Your task to perform on an android device: see tabs open on other devices in the chrome app Image 0: 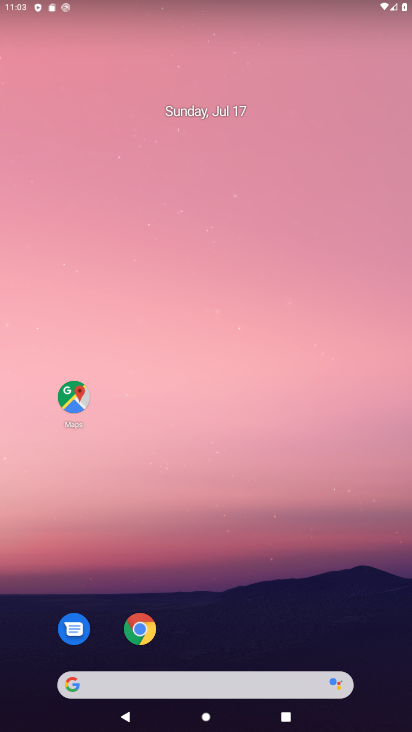
Step 0: click (144, 627)
Your task to perform on an android device: see tabs open on other devices in the chrome app Image 1: 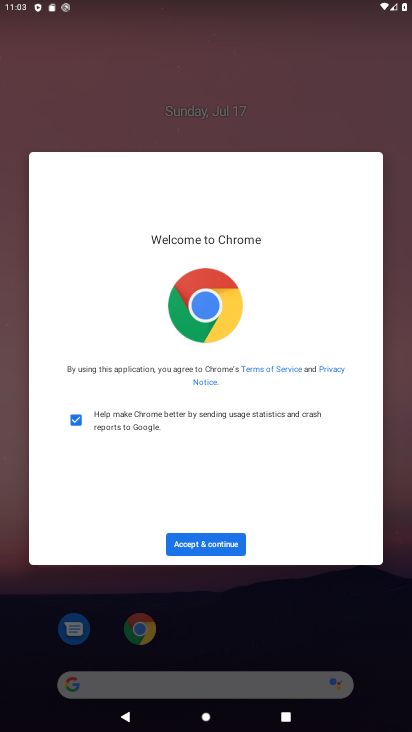
Step 1: click (196, 536)
Your task to perform on an android device: see tabs open on other devices in the chrome app Image 2: 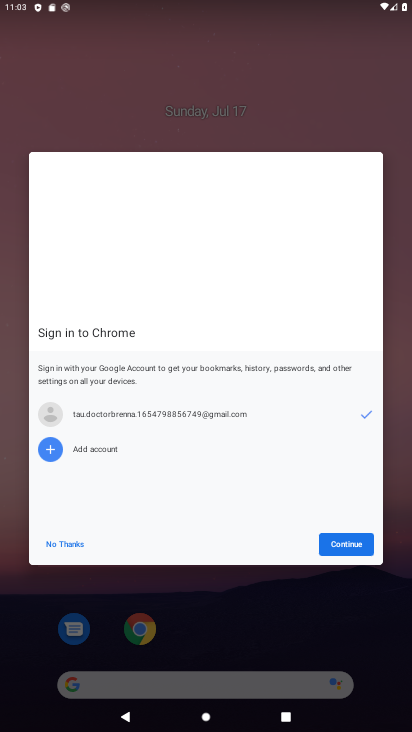
Step 2: click (329, 541)
Your task to perform on an android device: see tabs open on other devices in the chrome app Image 3: 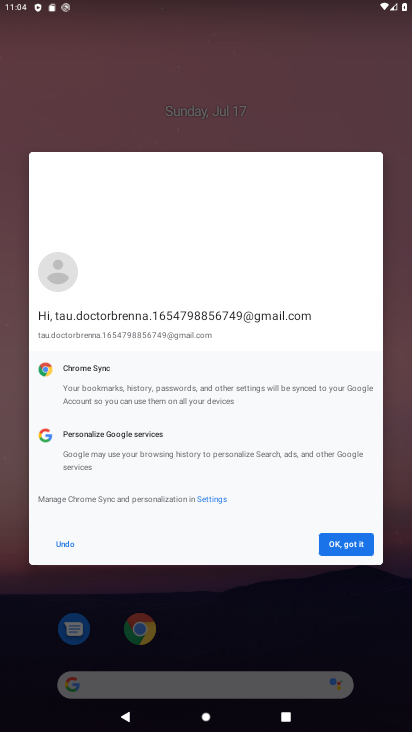
Step 3: click (340, 535)
Your task to perform on an android device: see tabs open on other devices in the chrome app Image 4: 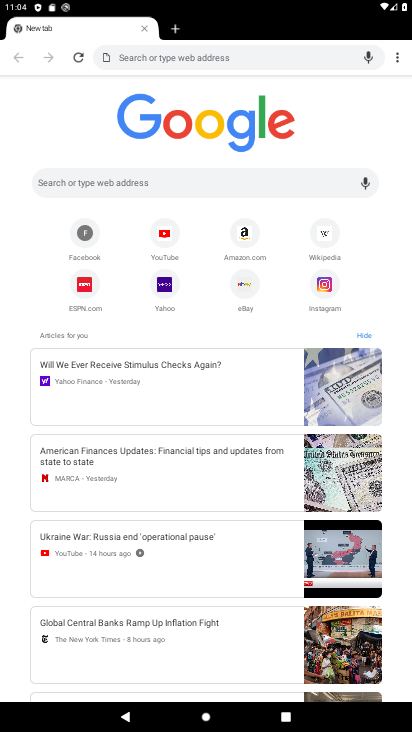
Step 4: click (394, 59)
Your task to perform on an android device: see tabs open on other devices in the chrome app Image 5: 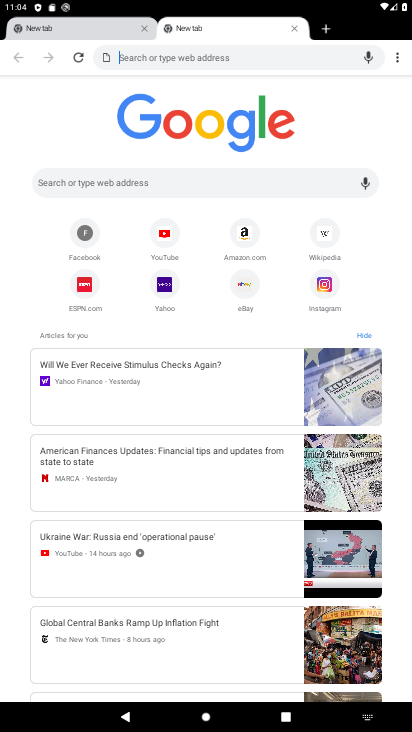
Step 5: click (391, 53)
Your task to perform on an android device: see tabs open on other devices in the chrome app Image 6: 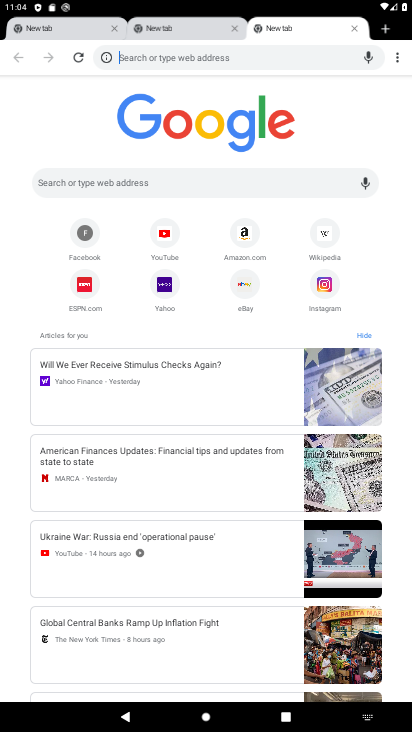
Step 6: click (394, 55)
Your task to perform on an android device: see tabs open on other devices in the chrome app Image 7: 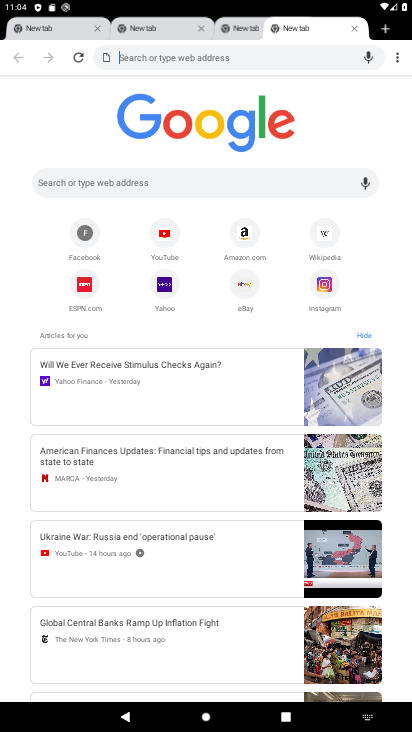
Step 7: click (391, 54)
Your task to perform on an android device: see tabs open on other devices in the chrome app Image 8: 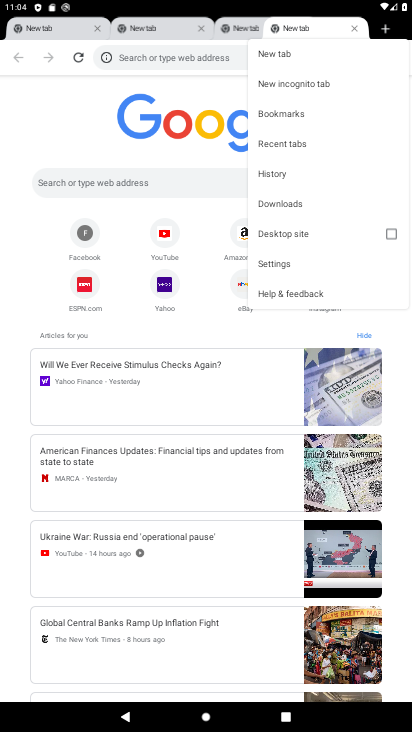
Step 8: click (278, 142)
Your task to perform on an android device: see tabs open on other devices in the chrome app Image 9: 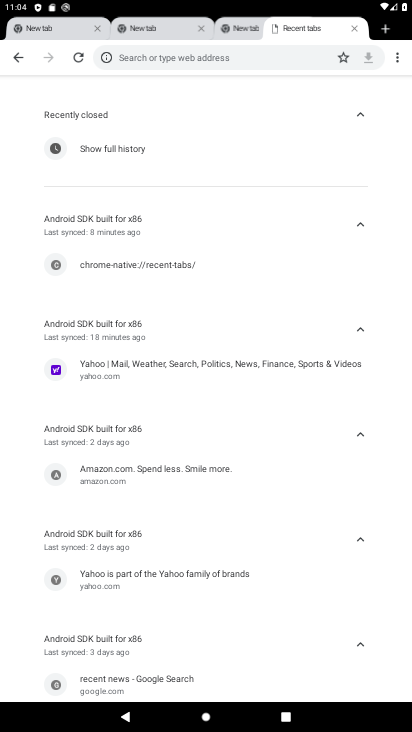
Step 9: task complete